Your task to perform on an android device: Open the phone app and click the voicemail tab. Image 0: 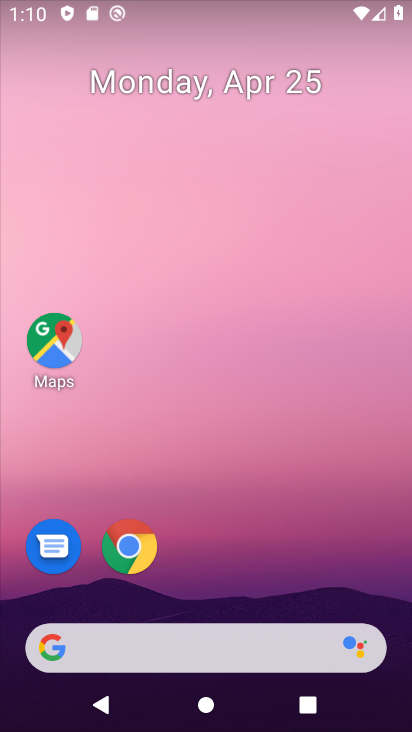
Step 0: drag from (176, 610) to (170, 2)
Your task to perform on an android device: Open the phone app and click the voicemail tab. Image 1: 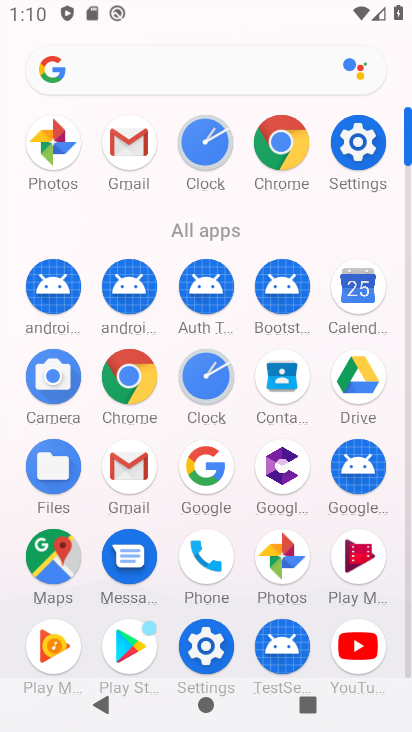
Step 1: click (188, 551)
Your task to perform on an android device: Open the phone app and click the voicemail tab. Image 2: 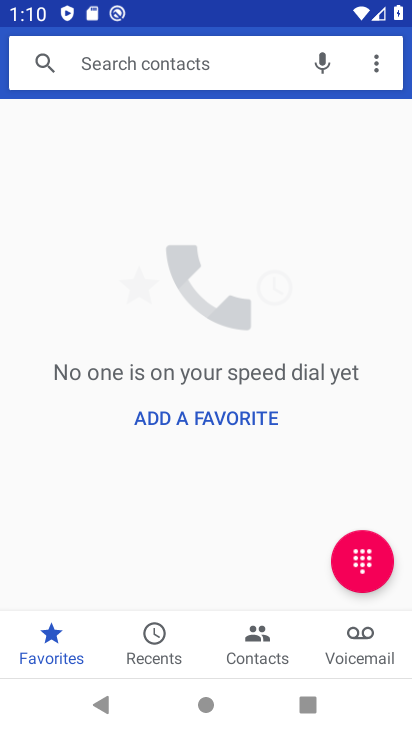
Step 2: click (381, 648)
Your task to perform on an android device: Open the phone app and click the voicemail tab. Image 3: 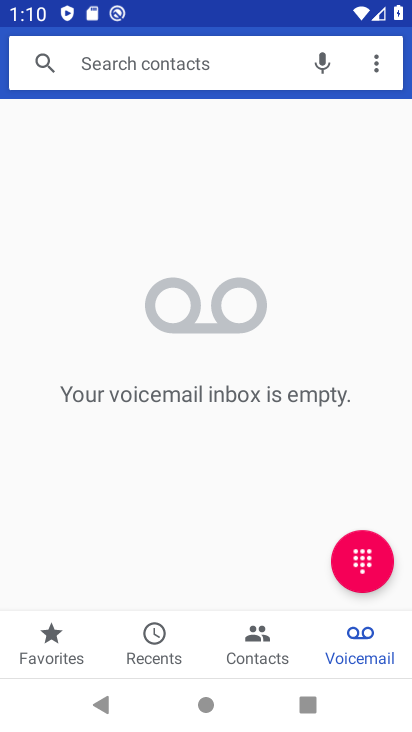
Step 3: task complete